Your task to perform on an android device: Go to accessibility settings Image 0: 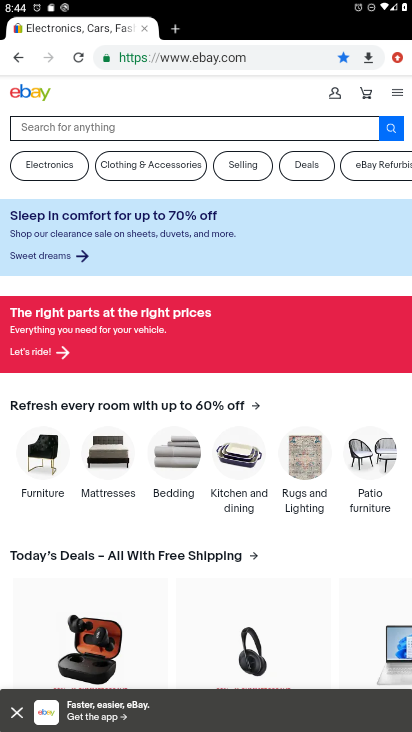
Step 0: press home button
Your task to perform on an android device: Go to accessibility settings Image 1: 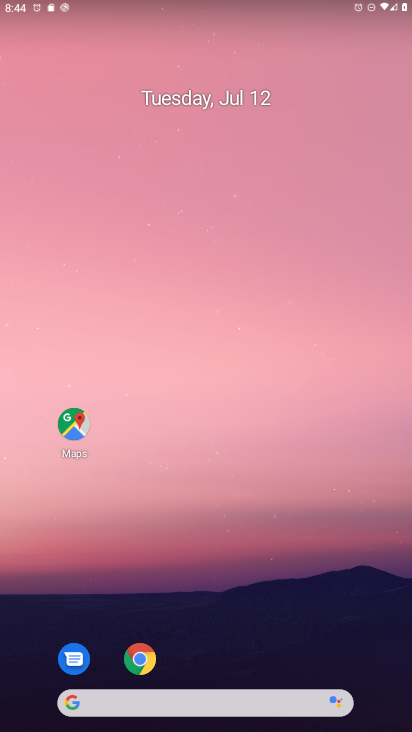
Step 1: drag from (187, 698) to (181, 151)
Your task to perform on an android device: Go to accessibility settings Image 2: 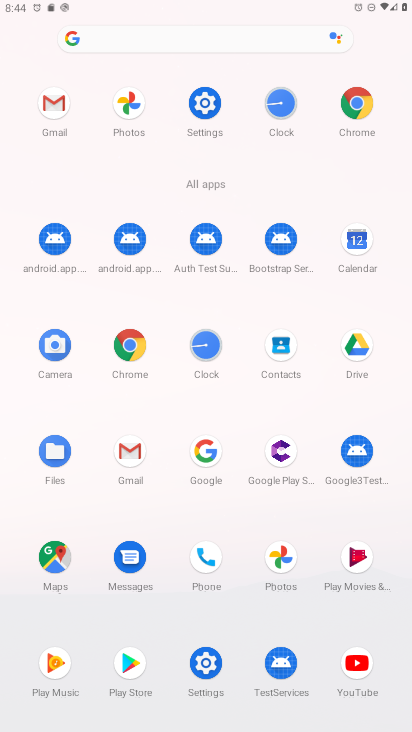
Step 2: click (203, 103)
Your task to perform on an android device: Go to accessibility settings Image 3: 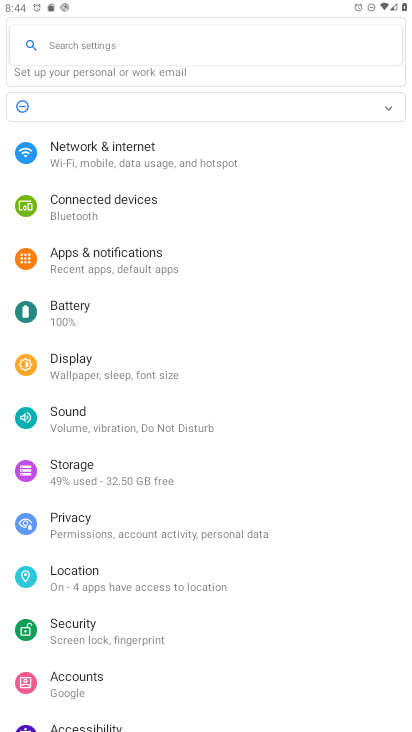
Step 3: drag from (113, 551) to (202, 389)
Your task to perform on an android device: Go to accessibility settings Image 4: 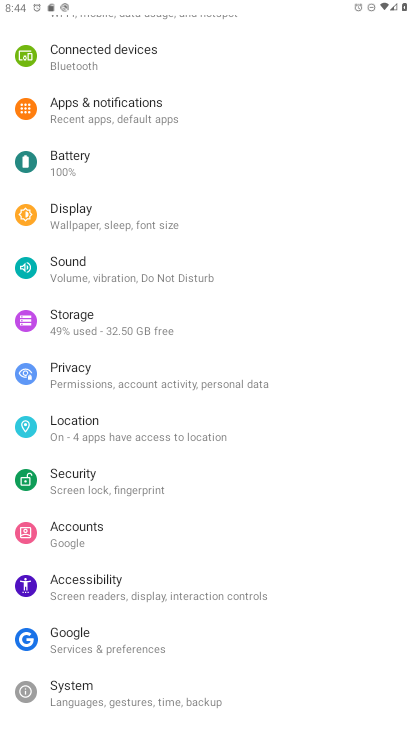
Step 4: click (128, 595)
Your task to perform on an android device: Go to accessibility settings Image 5: 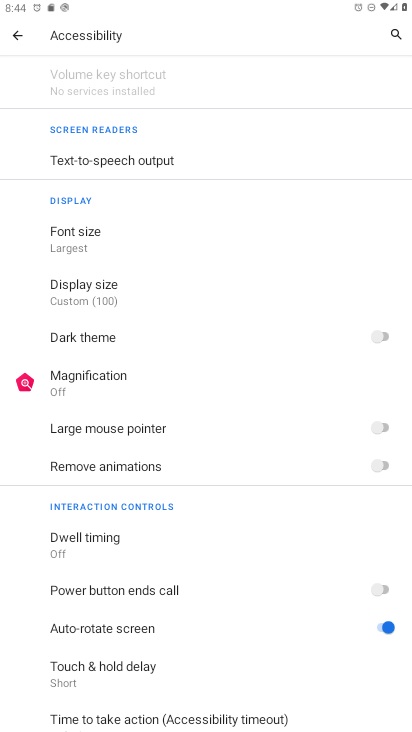
Step 5: task complete